Your task to perform on an android device: turn on sleep mode Image 0: 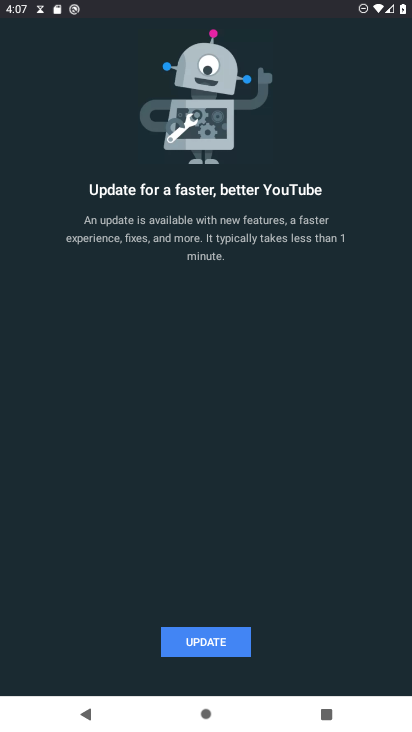
Step 0: press home button
Your task to perform on an android device: turn on sleep mode Image 1: 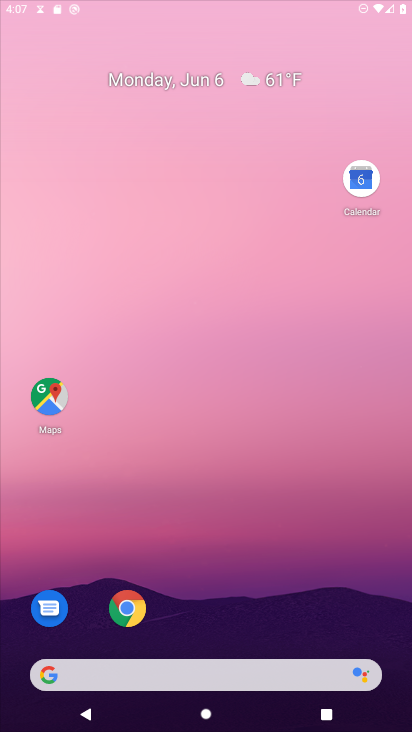
Step 1: drag from (222, 500) to (286, 5)
Your task to perform on an android device: turn on sleep mode Image 2: 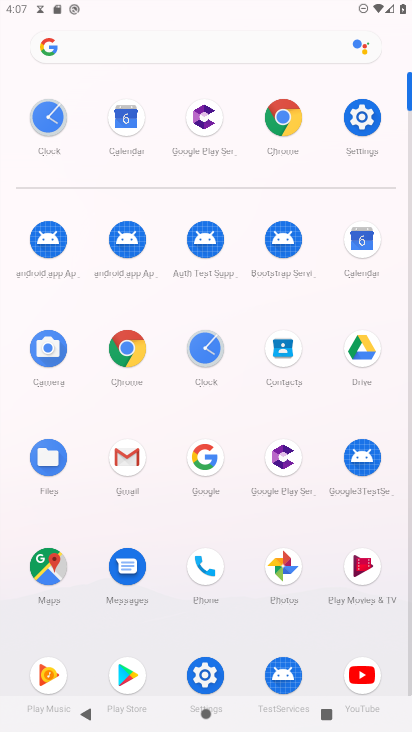
Step 2: click (364, 121)
Your task to perform on an android device: turn on sleep mode Image 3: 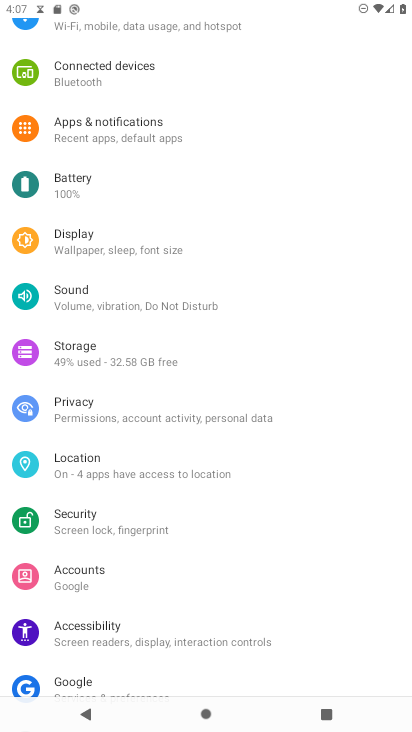
Step 3: task complete